Your task to perform on an android device: Go to location settings Image 0: 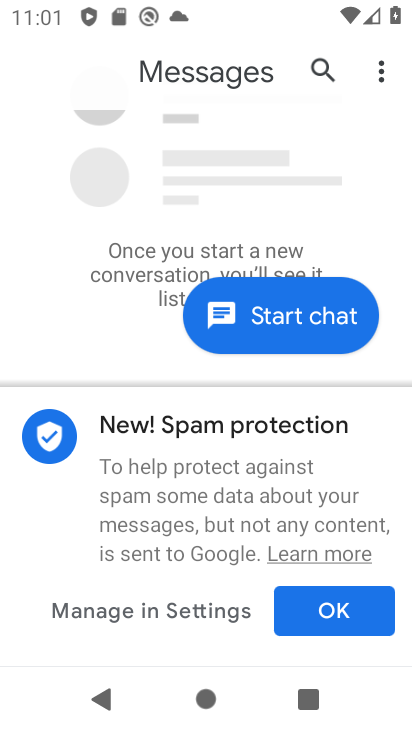
Step 0: press home button
Your task to perform on an android device: Go to location settings Image 1: 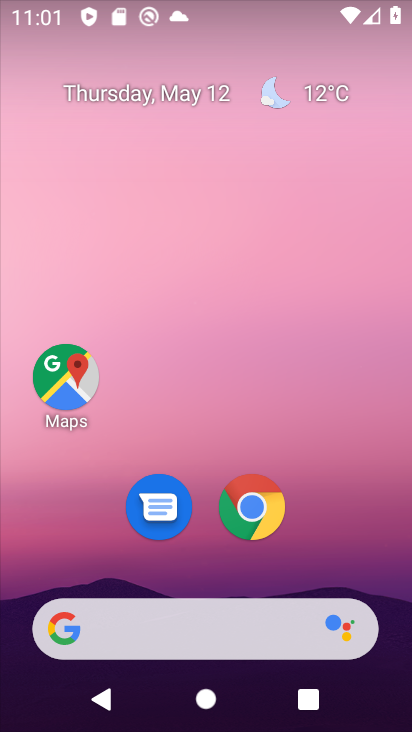
Step 1: drag from (207, 572) to (259, 0)
Your task to perform on an android device: Go to location settings Image 2: 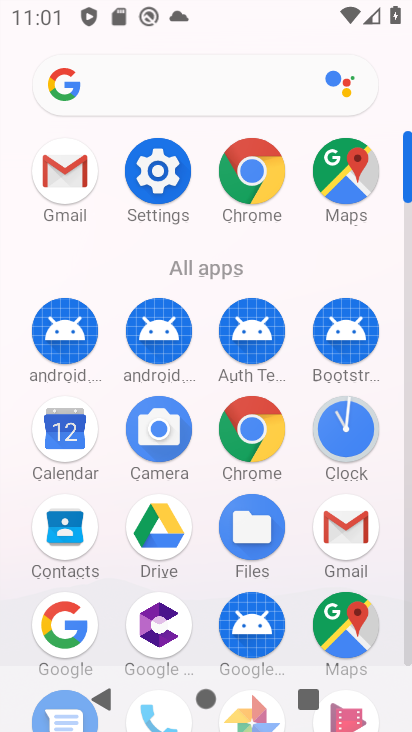
Step 2: click (157, 171)
Your task to perform on an android device: Go to location settings Image 3: 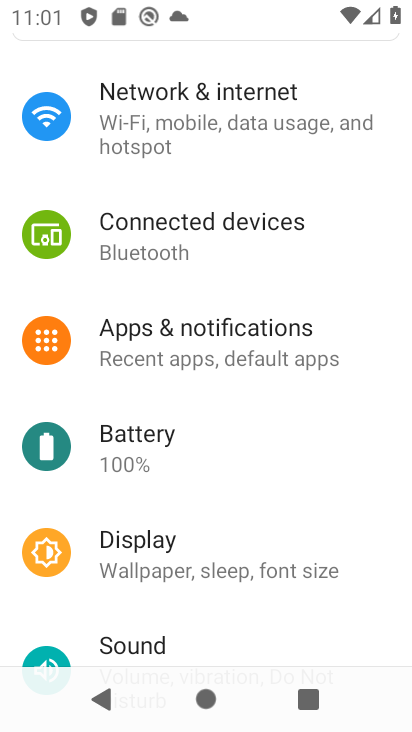
Step 3: drag from (192, 466) to (249, 242)
Your task to perform on an android device: Go to location settings Image 4: 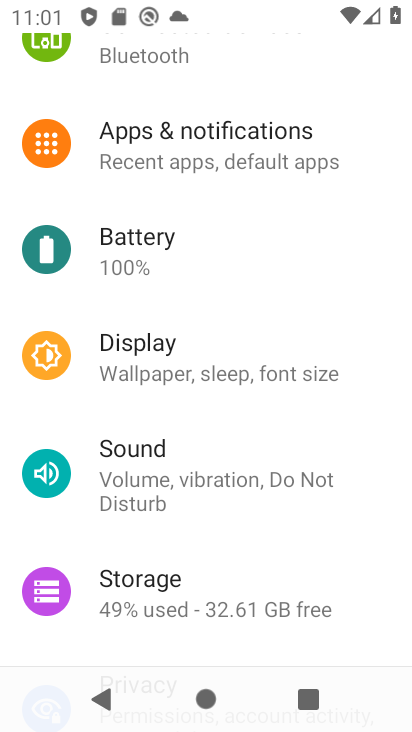
Step 4: drag from (211, 591) to (261, 146)
Your task to perform on an android device: Go to location settings Image 5: 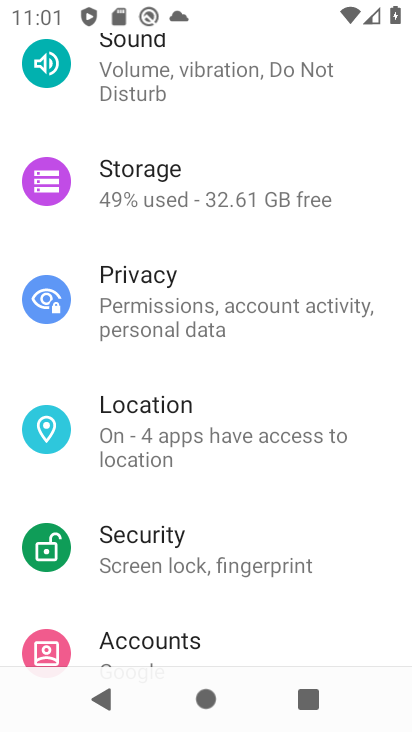
Step 5: click (138, 421)
Your task to perform on an android device: Go to location settings Image 6: 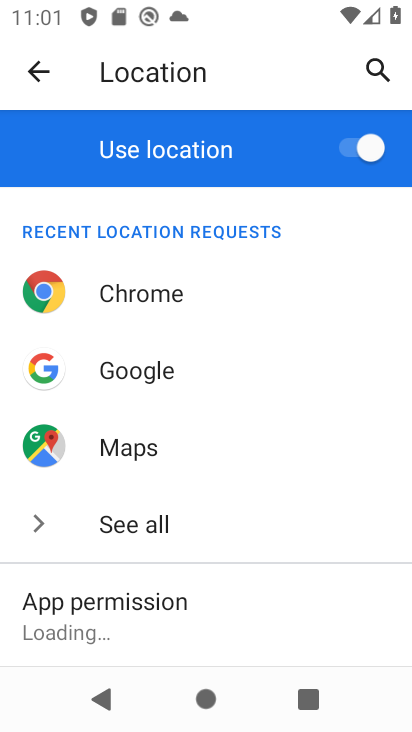
Step 6: task complete